Your task to perform on an android device: allow cookies in the chrome app Image 0: 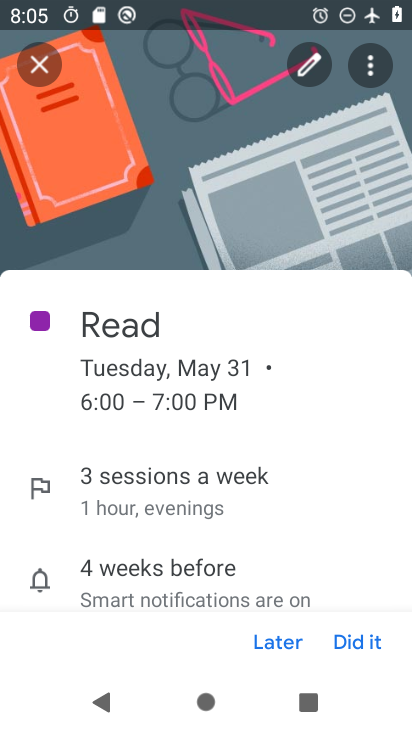
Step 0: press home button
Your task to perform on an android device: allow cookies in the chrome app Image 1: 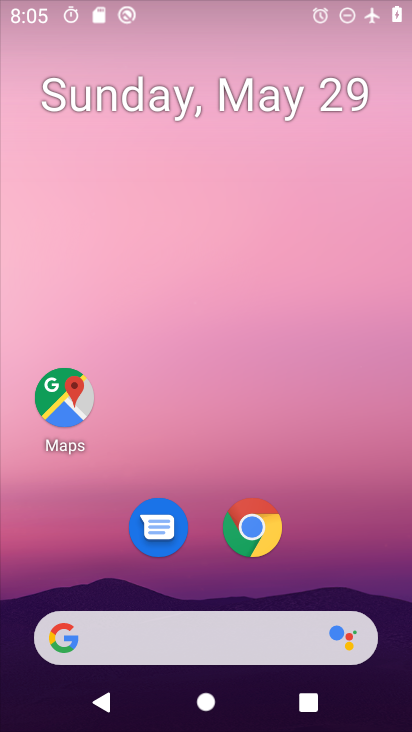
Step 1: drag from (385, 634) to (323, 77)
Your task to perform on an android device: allow cookies in the chrome app Image 2: 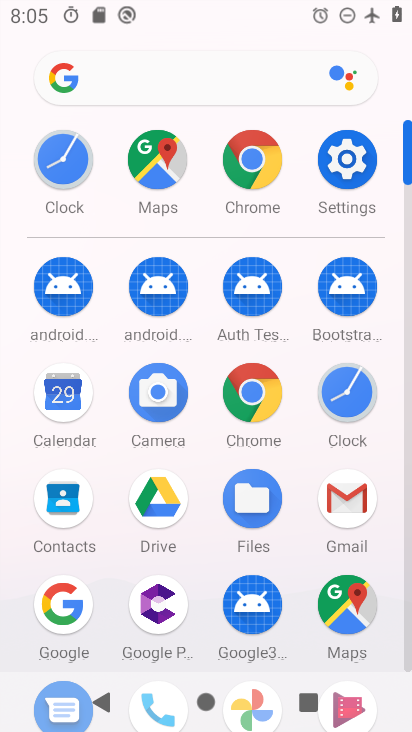
Step 2: click (259, 178)
Your task to perform on an android device: allow cookies in the chrome app Image 3: 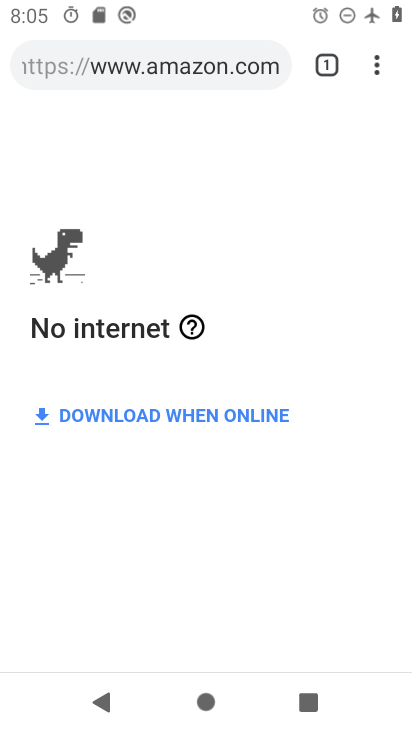
Step 3: press back button
Your task to perform on an android device: allow cookies in the chrome app Image 4: 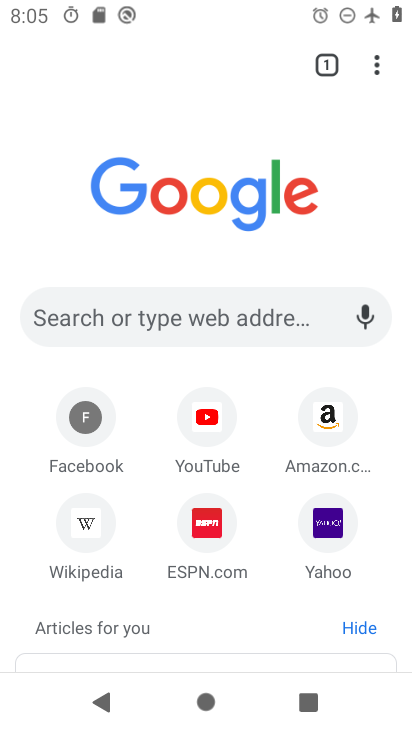
Step 4: click (379, 62)
Your task to perform on an android device: allow cookies in the chrome app Image 5: 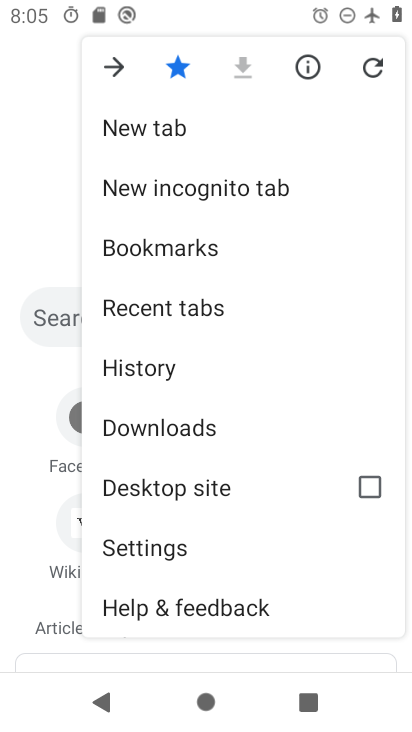
Step 5: click (119, 354)
Your task to perform on an android device: allow cookies in the chrome app Image 6: 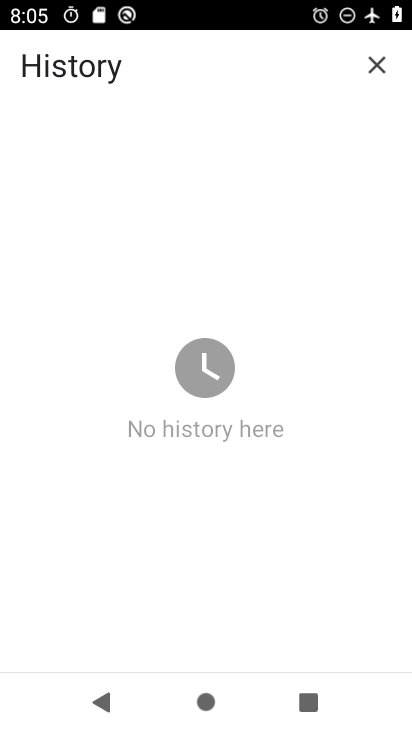
Step 6: task complete